Your task to perform on an android device: Go to Amazon Image 0: 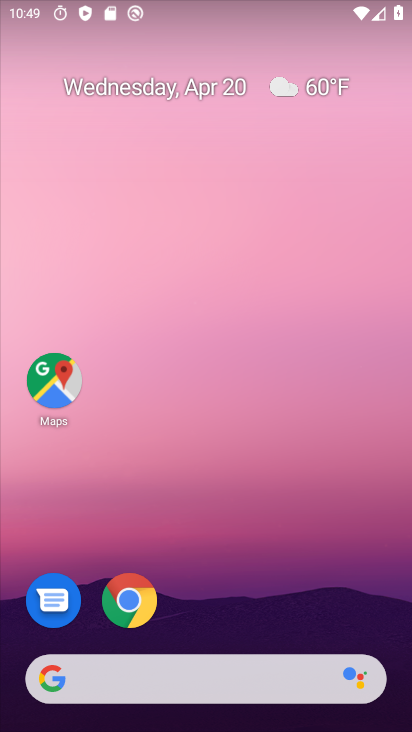
Step 0: drag from (254, 633) to (307, 316)
Your task to perform on an android device: Go to Amazon Image 1: 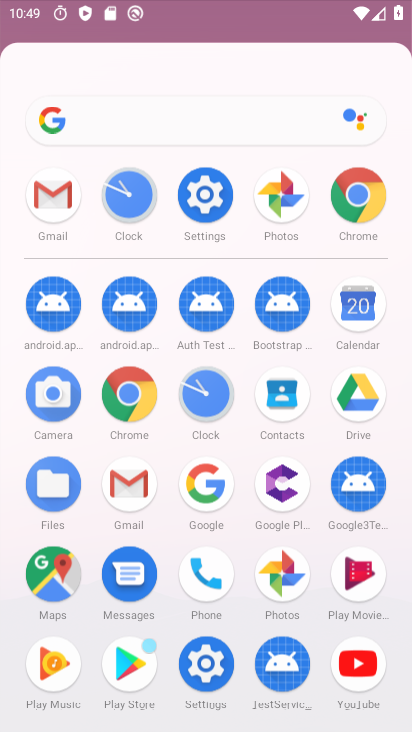
Step 1: click (125, 345)
Your task to perform on an android device: Go to Amazon Image 2: 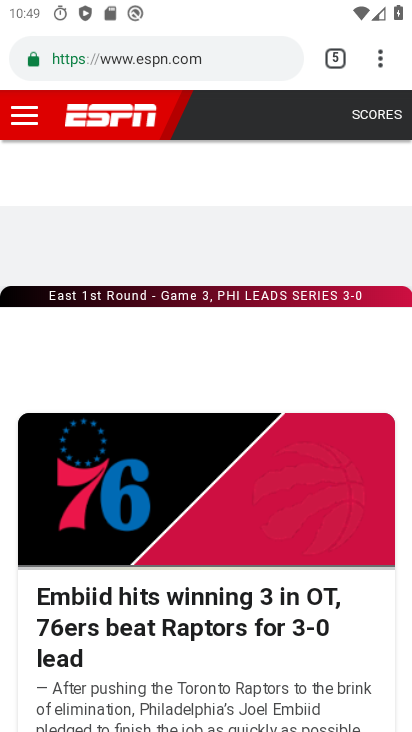
Step 2: click (342, 60)
Your task to perform on an android device: Go to Amazon Image 3: 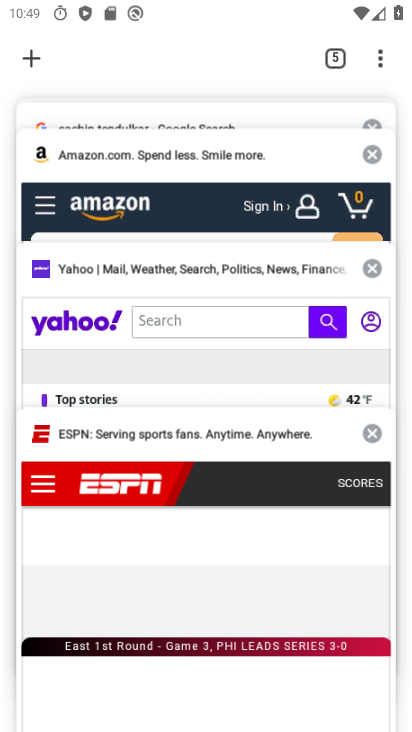
Step 3: click (36, 76)
Your task to perform on an android device: Go to Amazon Image 4: 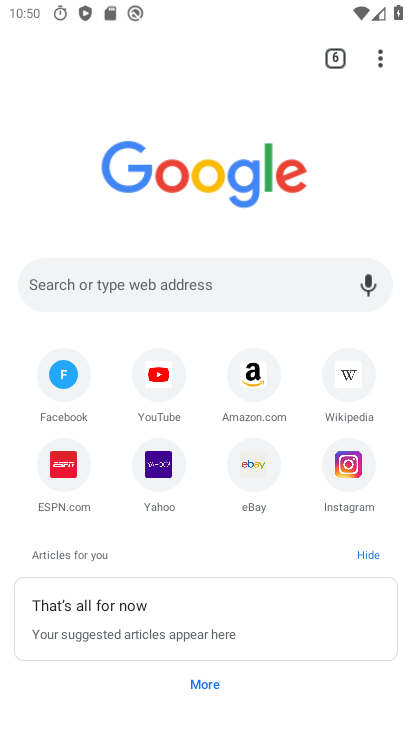
Step 4: click (264, 384)
Your task to perform on an android device: Go to Amazon Image 5: 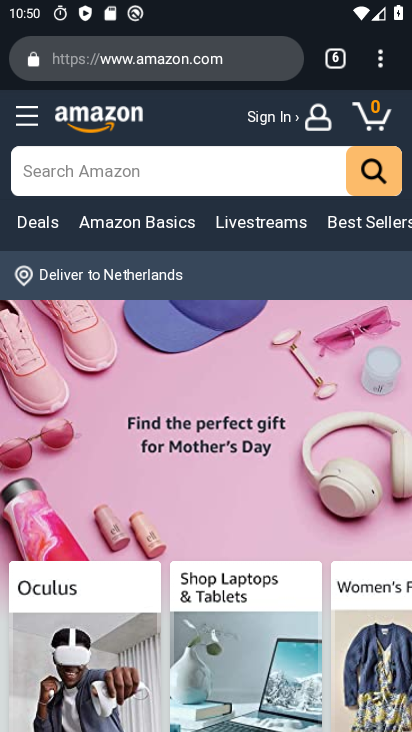
Step 5: task complete